Your task to perform on an android device: change the clock display to show seconds Image 0: 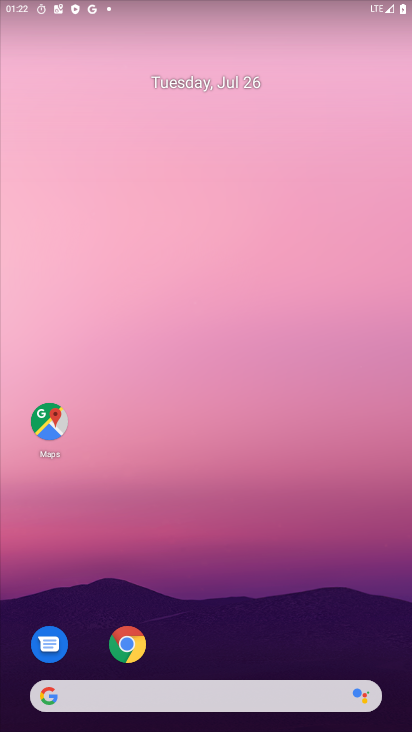
Step 0: drag from (232, 661) to (225, 2)
Your task to perform on an android device: change the clock display to show seconds Image 1: 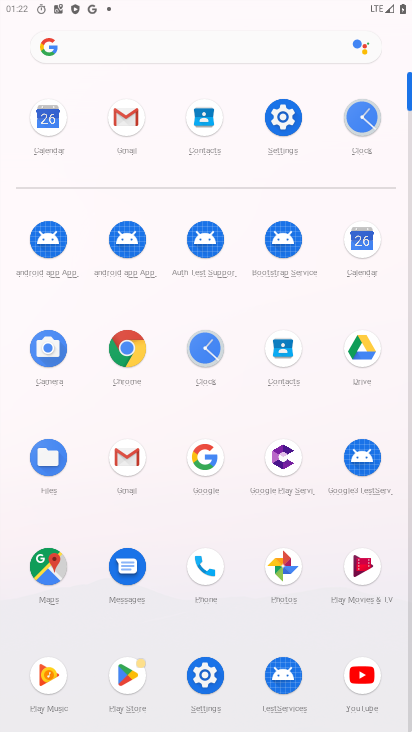
Step 1: click (208, 355)
Your task to perform on an android device: change the clock display to show seconds Image 2: 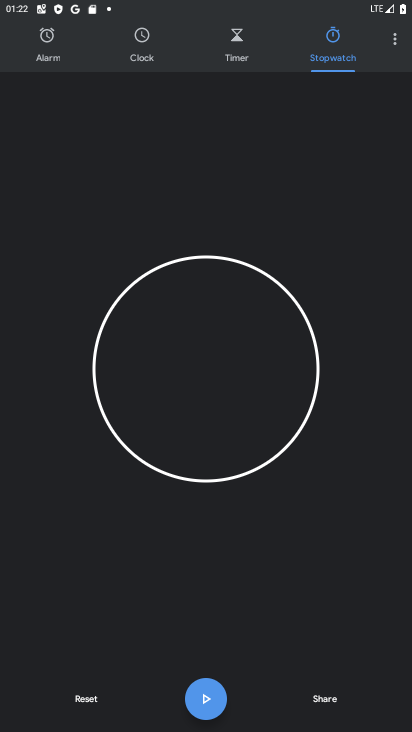
Step 2: click (392, 39)
Your task to perform on an android device: change the clock display to show seconds Image 3: 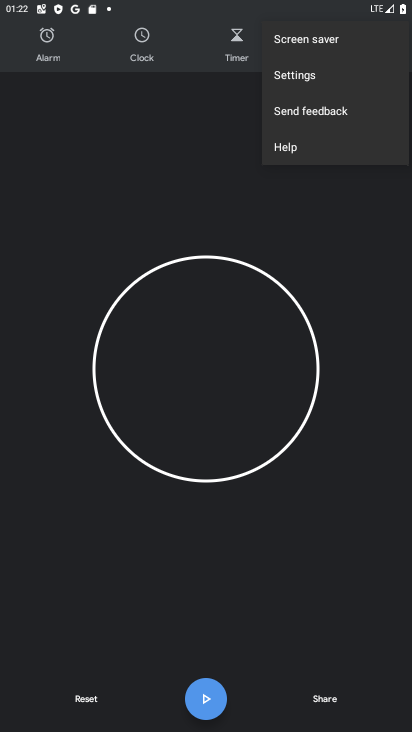
Step 3: click (300, 79)
Your task to perform on an android device: change the clock display to show seconds Image 4: 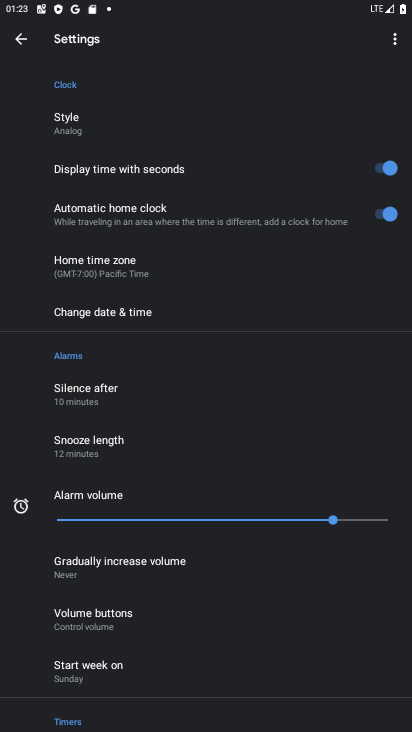
Step 4: task complete